Your task to perform on an android device: toggle pop-ups in chrome Image 0: 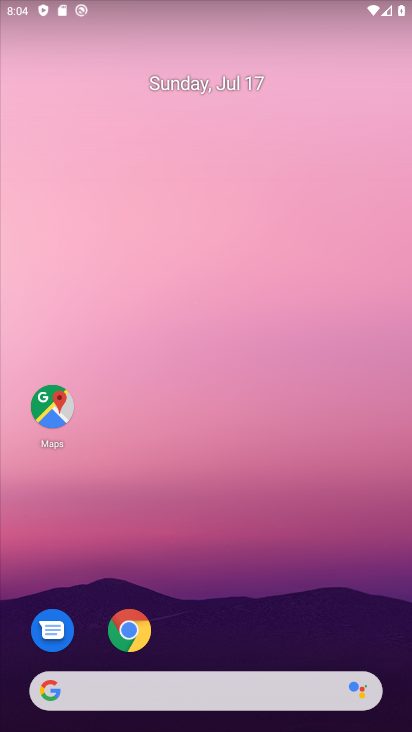
Step 0: drag from (317, 613) to (331, 125)
Your task to perform on an android device: toggle pop-ups in chrome Image 1: 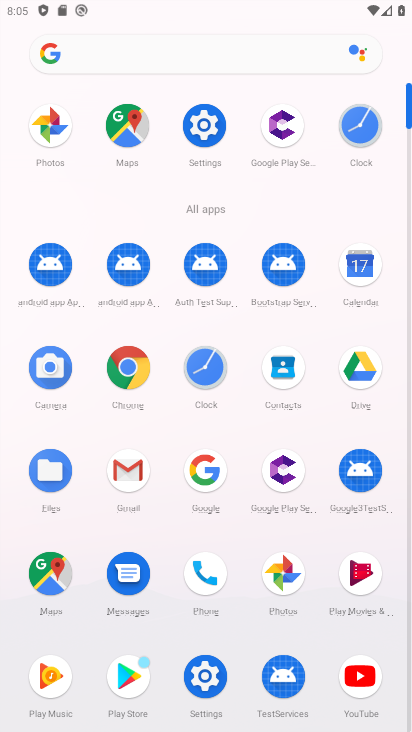
Step 1: click (136, 363)
Your task to perform on an android device: toggle pop-ups in chrome Image 2: 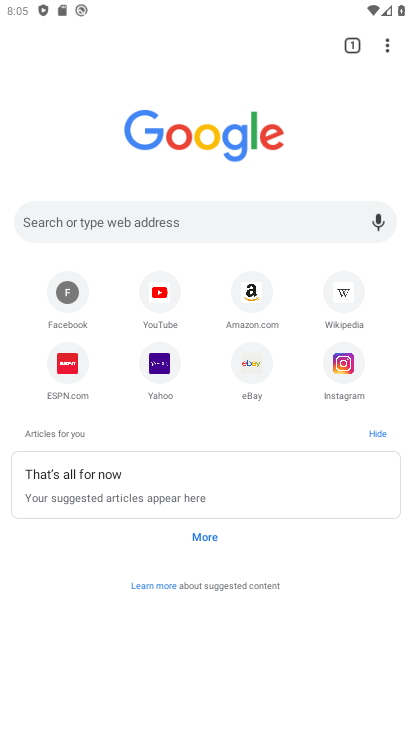
Step 2: click (387, 54)
Your task to perform on an android device: toggle pop-ups in chrome Image 3: 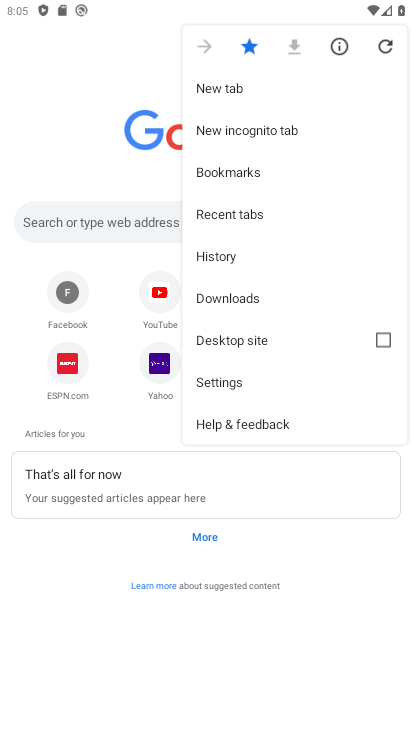
Step 3: click (224, 391)
Your task to perform on an android device: toggle pop-ups in chrome Image 4: 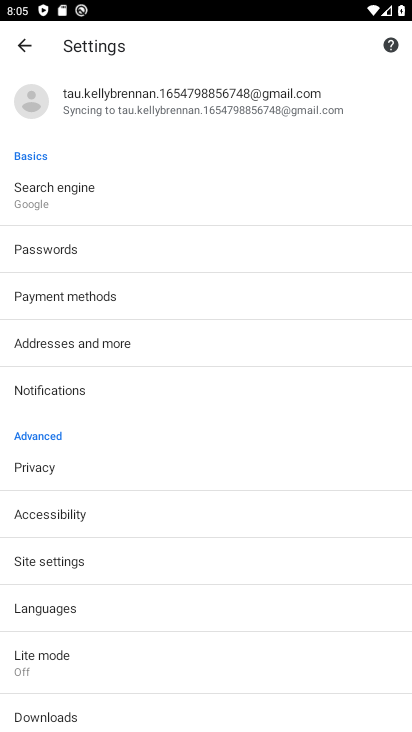
Step 4: drag from (334, 539) to (349, 305)
Your task to perform on an android device: toggle pop-ups in chrome Image 5: 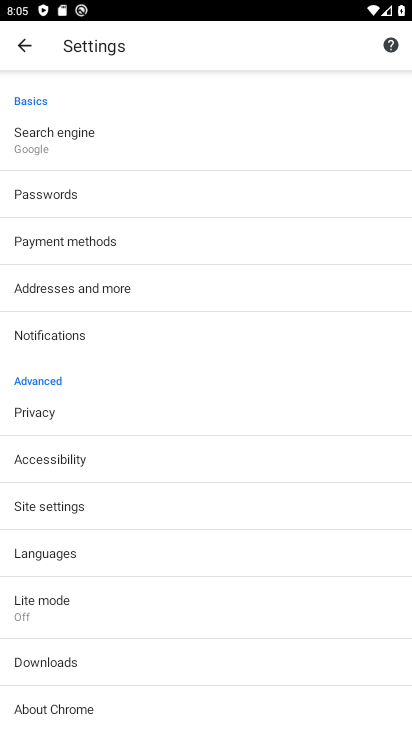
Step 5: drag from (323, 500) to (323, 324)
Your task to perform on an android device: toggle pop-ups in chrome Image 6: 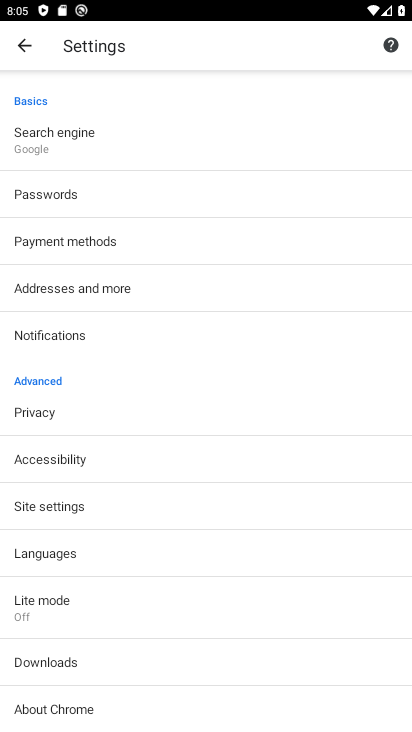
Step 6: drag from (309, 585) to (315, 374)
Your task to perform on an android device: toggle pop-ups in chrome Image 7: 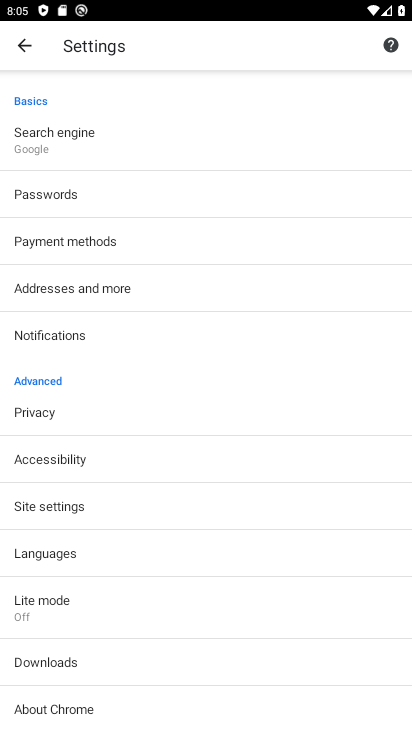
Step 7: click (147, 499)
Your task to perform on an android device: toggle pop-ups in chrome Image 8: 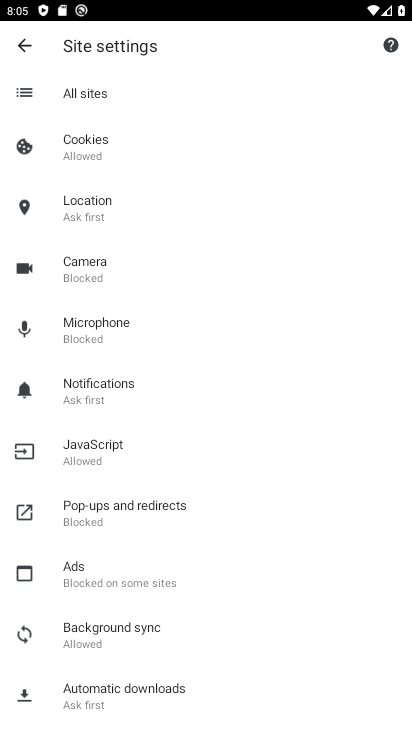
Step 8: drag from (294, 553) to (292, 472)
Your task to perform on an android device: toggle pop-ups in chrome Image 9: 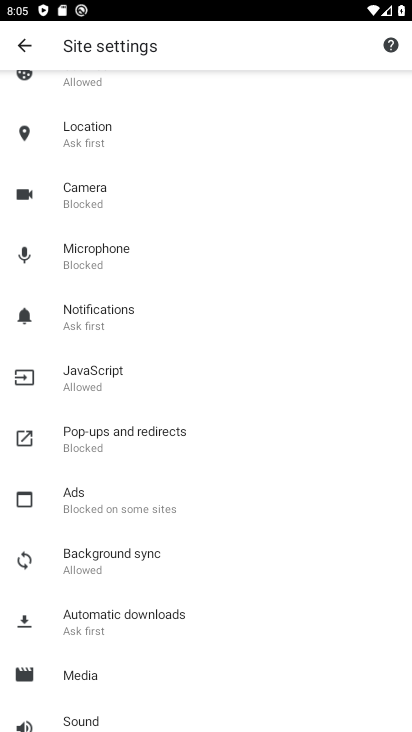
Step 9: drag from (296, 564) to (306, 399)
Your task to perform on an android device: toggle pop-ups in chrome Image 10: 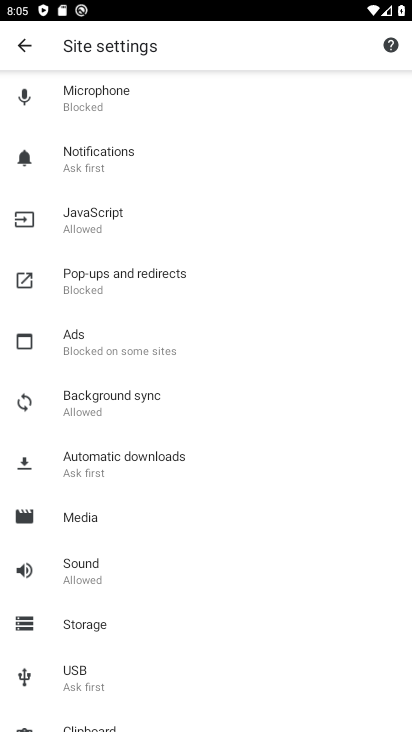
Step 10: drag from (333, 569) to (335, 452)
Your task to perform on an android device: toggle pop-ups in chrome Image 11: 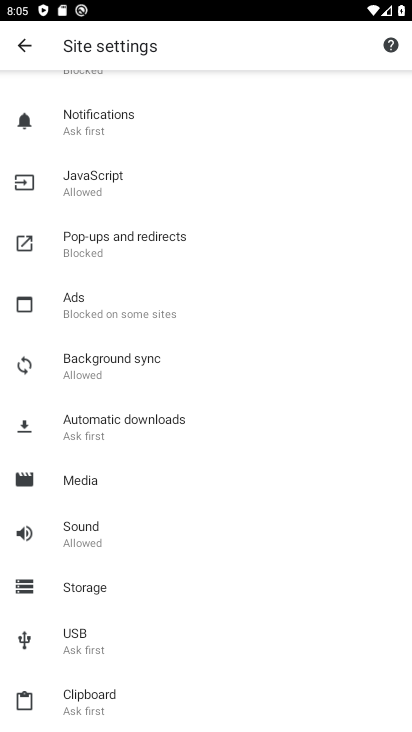
Step 11: drag from (335, 349) to (318, 506)
Your task to perform on an android device: toggle pop-ups in chrome Image 12: 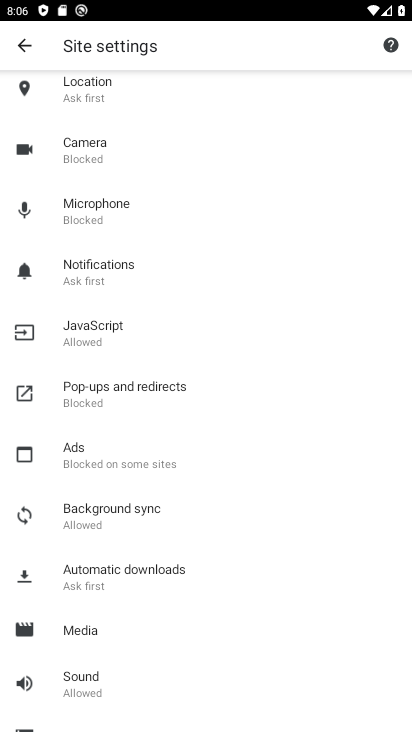
Step 12: drag from (326, 363) to (307, 521)
Your task to perform on an android device: toggle pop-ups in chrome Image 13: 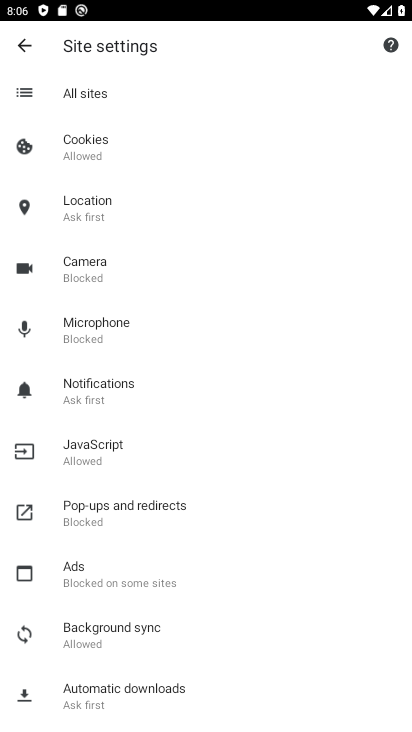
Step 13: drag from (290, 292) to (279, 399)
Your task to perform on an android device: toggle pop-ups in chrome Image 14: 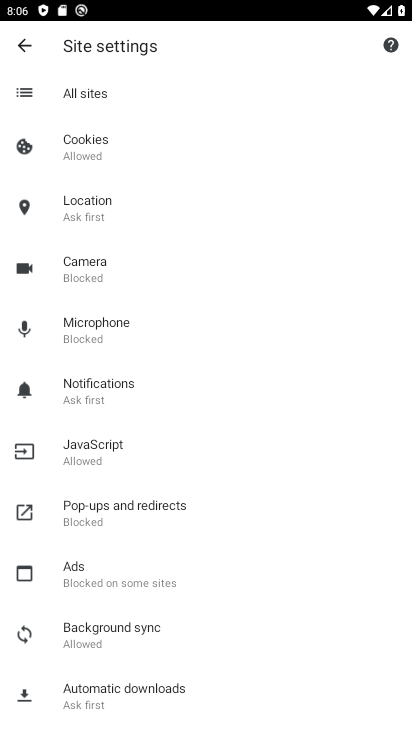
Step 14: click (211, 513)
Your task to perform on an android device: toggle pop-ups in chrome Image 15: 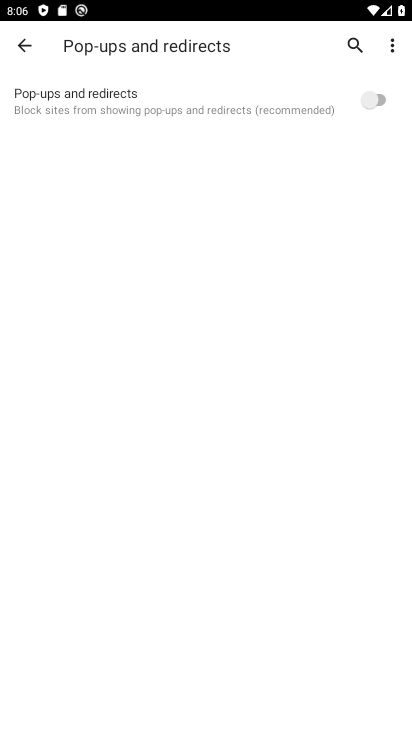
Step 15: click (371, 108)
Your task to perform on an android device: toggle pop-ups in chrome Image 16: 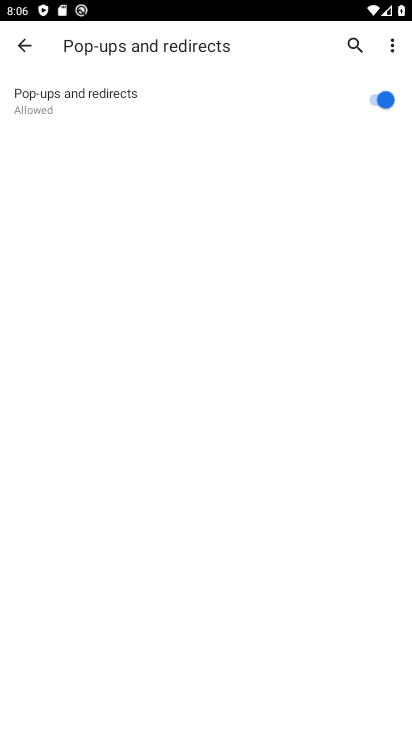
Step 16: task complete